Your task to perform on an android device: change alarm snooze length Image 0: 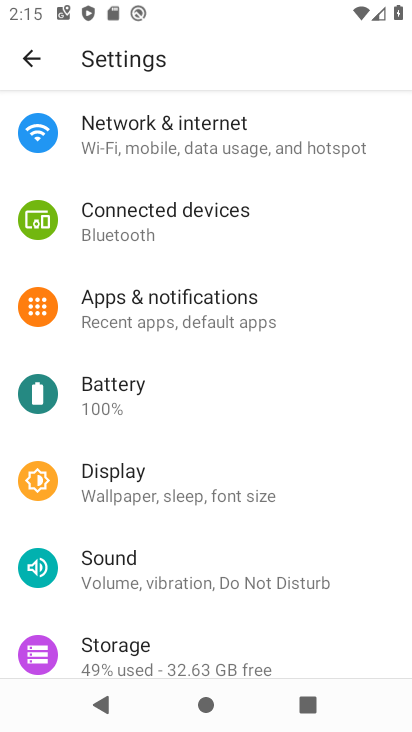
Step 0: press home button
Your task to perform on an android device: change alarm snooze length Image 1: 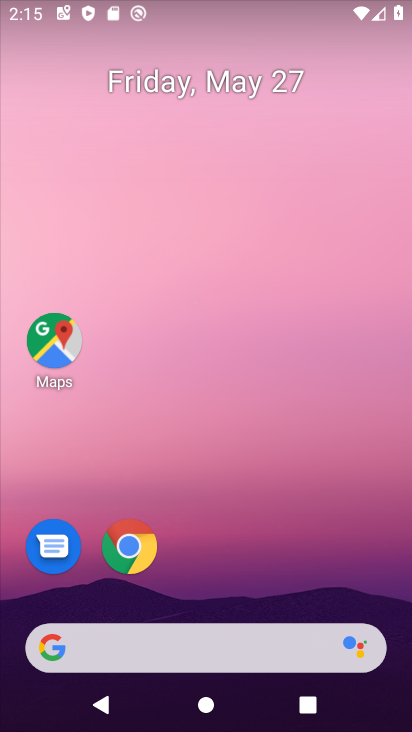
Step 1: drag from (202, 552) to (209, 52)
Your task to perform on an android device: change alarm snooze length Image 2: 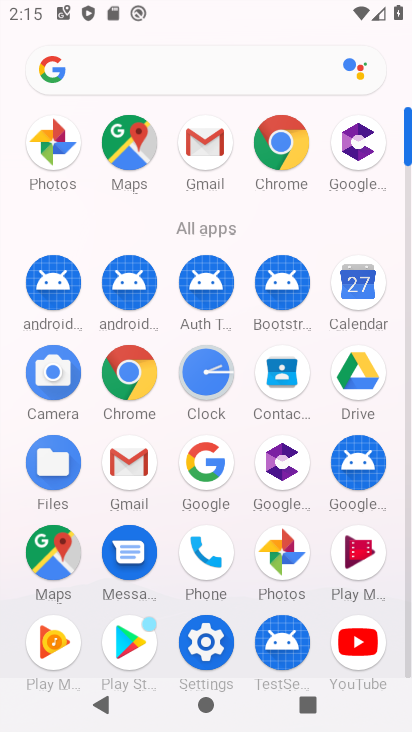
Step 2: click (202, 356)
Your task to perform on an android device: change alarm snooze length Image 3: 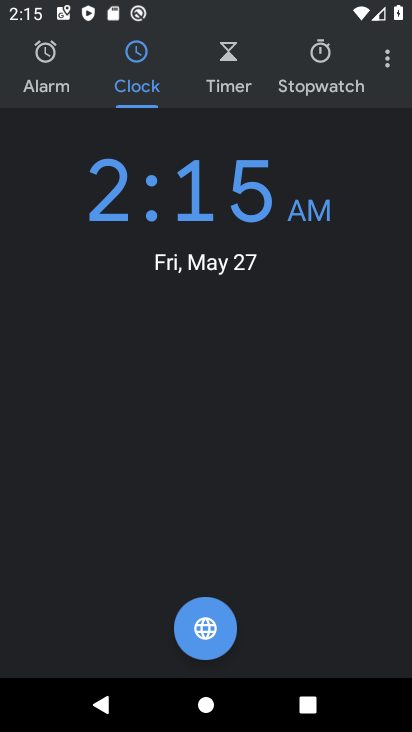
Step 3: click (384, 73)
Your task to perform on an android device: change alarm snooze length Image 4: 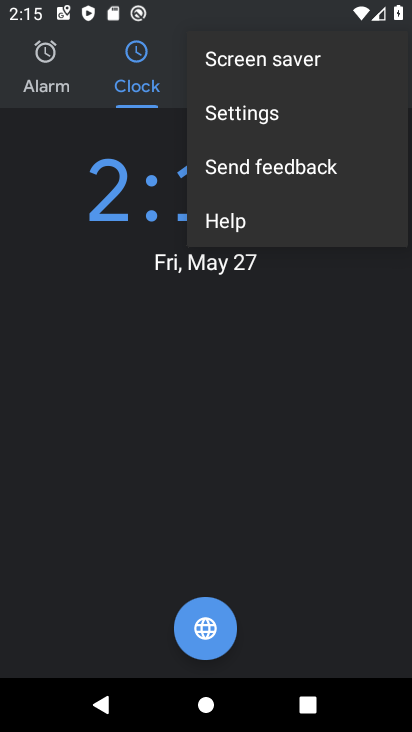
Step 4: click (236, 129)
Your task to perform on an android device: change alarm snooze length Image 5: 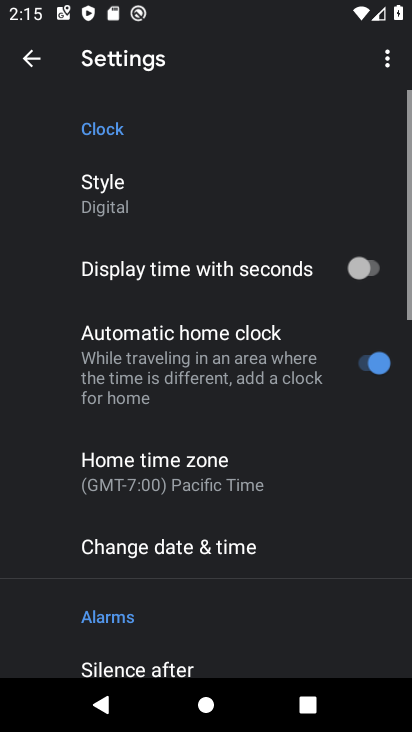
Step 5: drag from (228, 510) to (213, 184)
Your task to perform on an android device: change alarm snooze length Image 6: 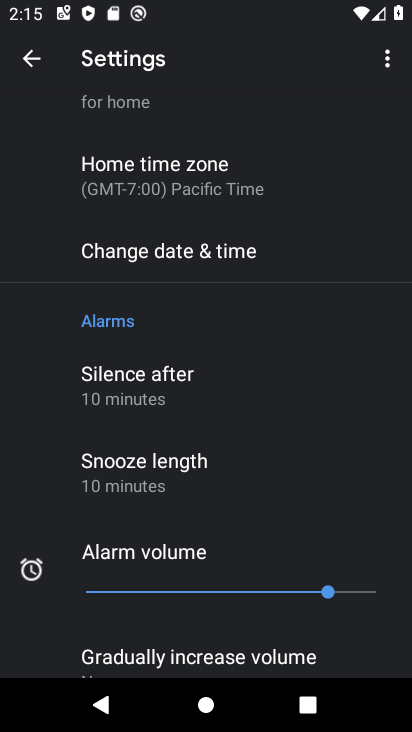
Step 6: click (162, 467)
Your task to perform on an android device: change alarm snooze length Image 7: 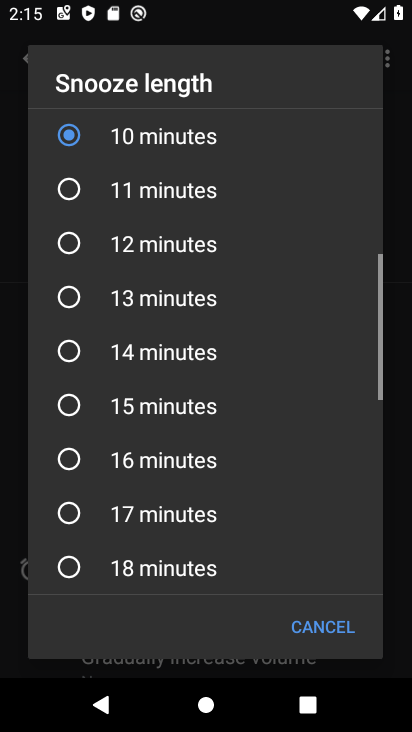
Step 7: click (150, 560)
Your task to perform on an android device: change alarm snooze length Image 8: 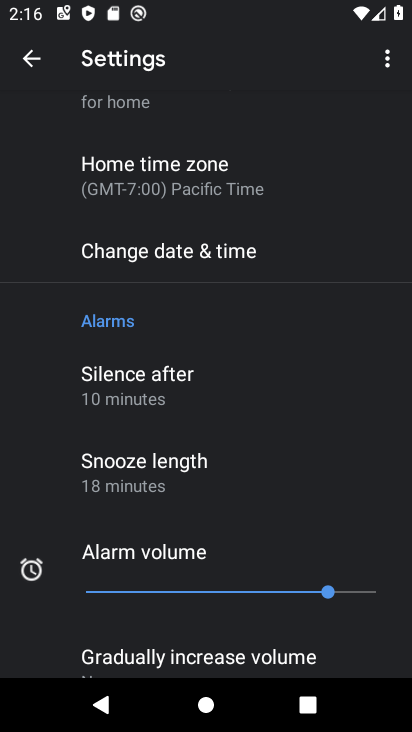
Step 8: task complete